Your task to perform on an android device: manage bookmarks in the chrome app Image 0: 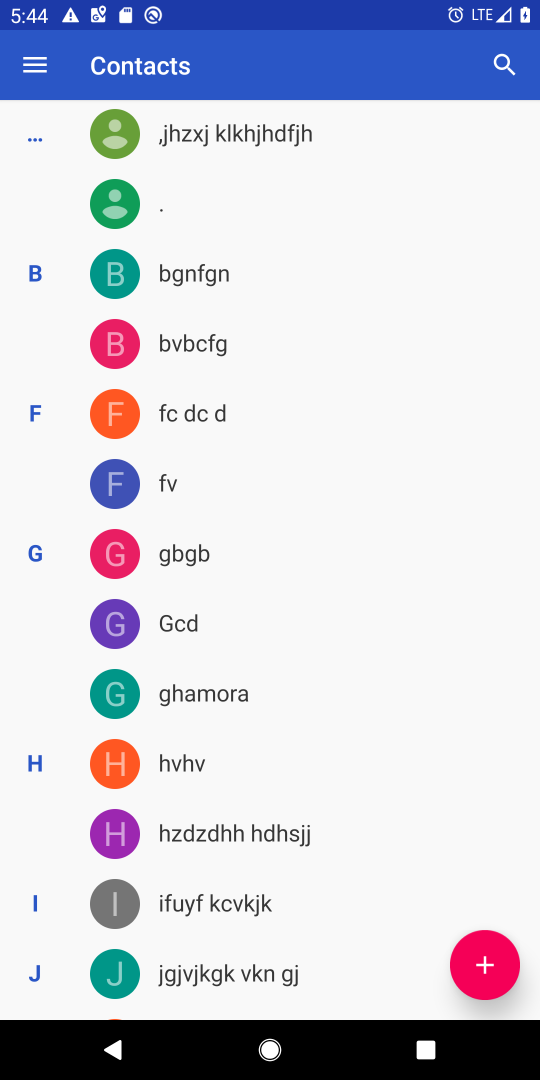
Step 0: press back button
Your task to perform on an android device: manage bookmarks in the chrome app Image 1: 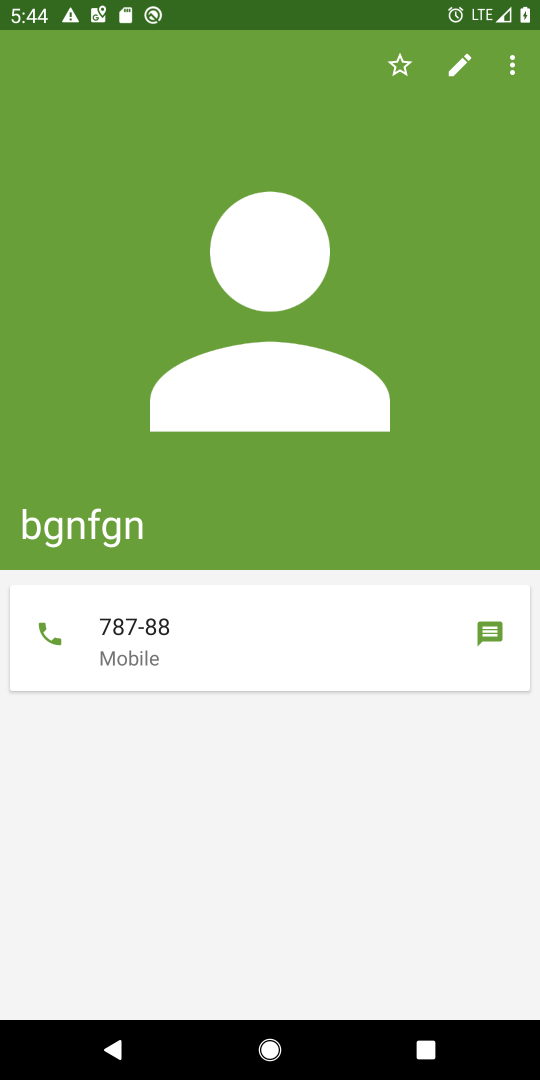
Step 1: press back button
Your task to perform on an android device: manage bookmarks in the chrome app Image 2: 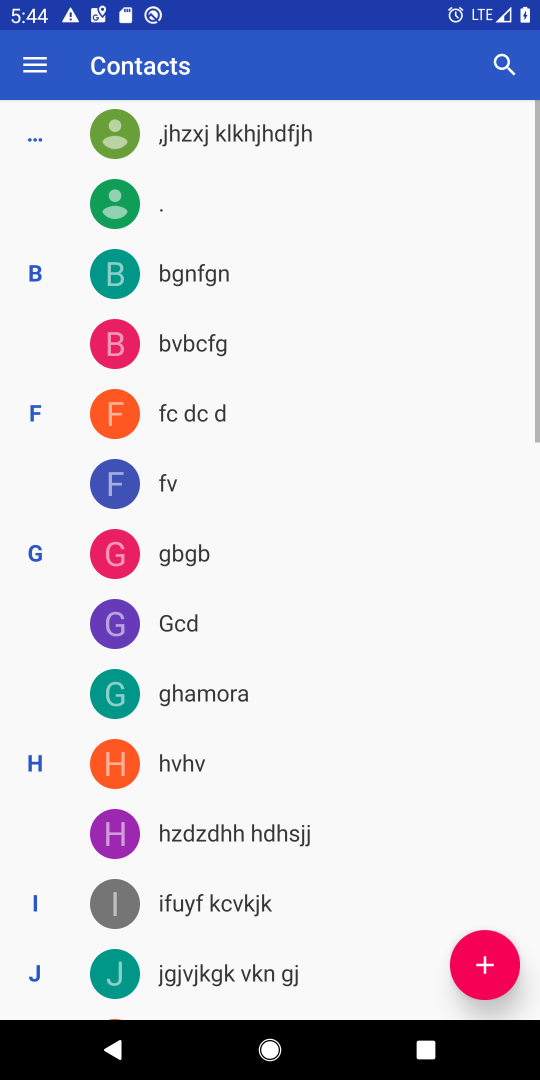
Step 2: press back button
Your task to perform on an android device: manage bookmarks in the chrome app Image 3: 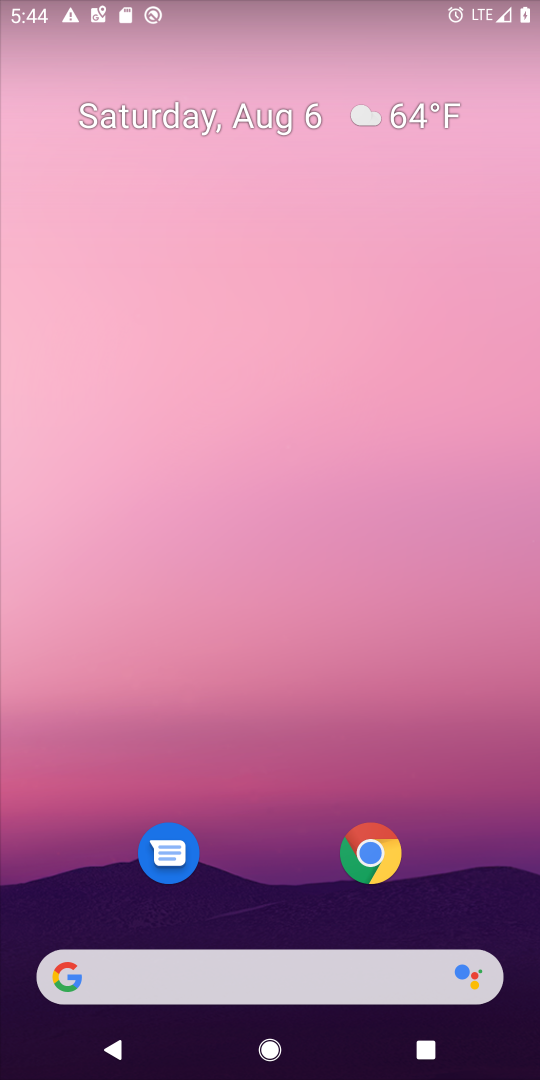
Step 3: click (366, 850)
Your task to perform on an android device: manage bookmarks in the chrome app Image 4: 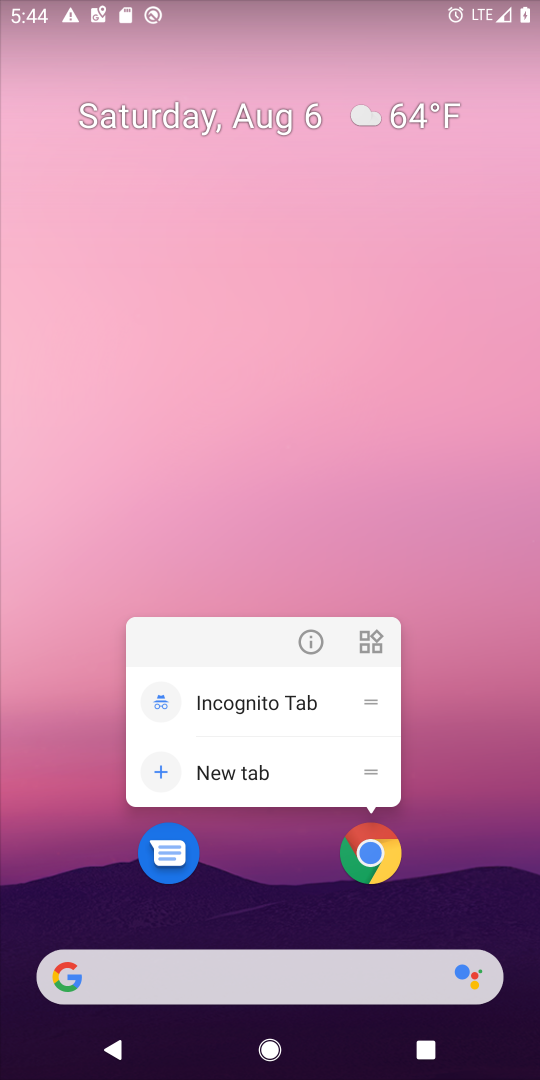
Step 4: click (366, 850)
Your task to perform on an android device: manage bookmarks in the chrome app Image 5: 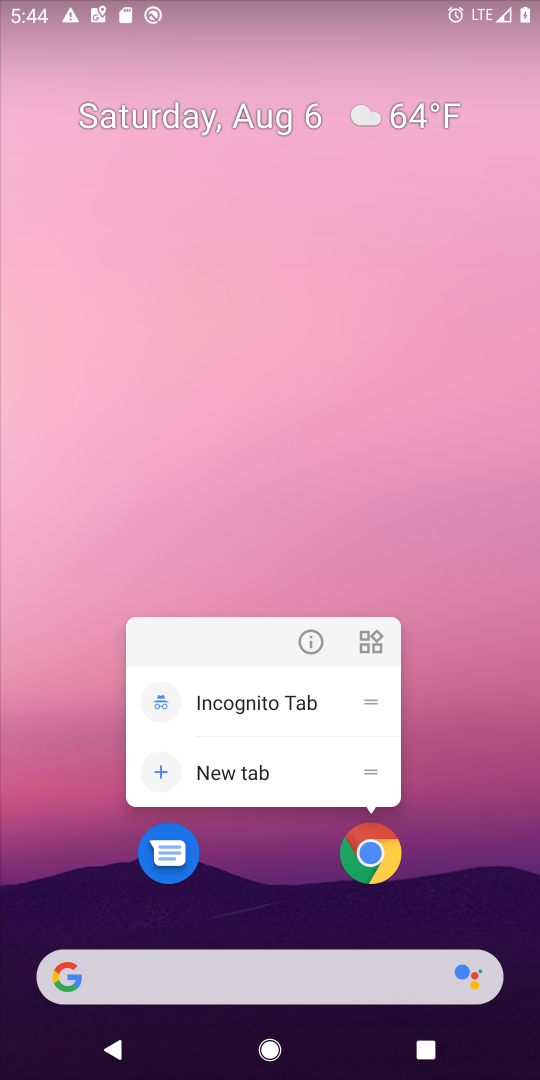
Step 5: click (372, 856)
Your task to perform on an android device: manage bookmarks in the chrome app Image 6: 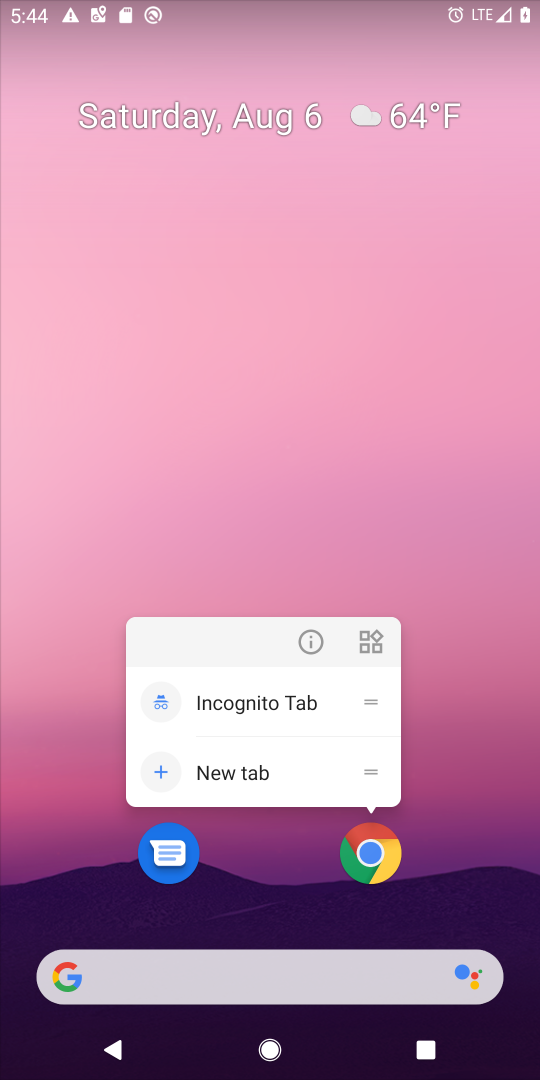
Step 6: click (372, 856)
Your task to perform on an android device: manage bookmarks in the chrome app Image 7: 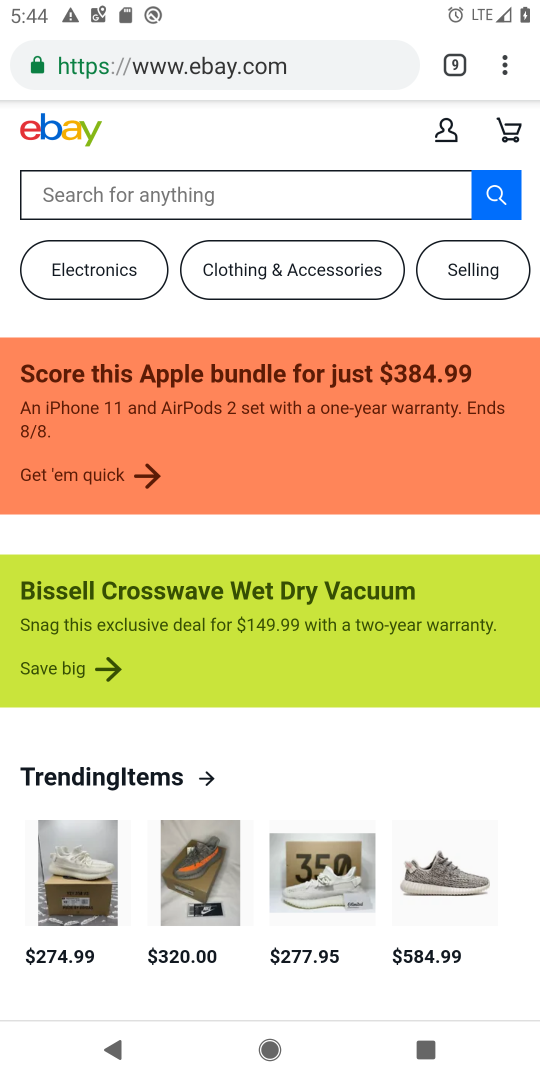
Step 7: drag from (499, 60) to (325, 258)
Your task to perform on an android device: manage bookmarks in the chrome app Image 8: 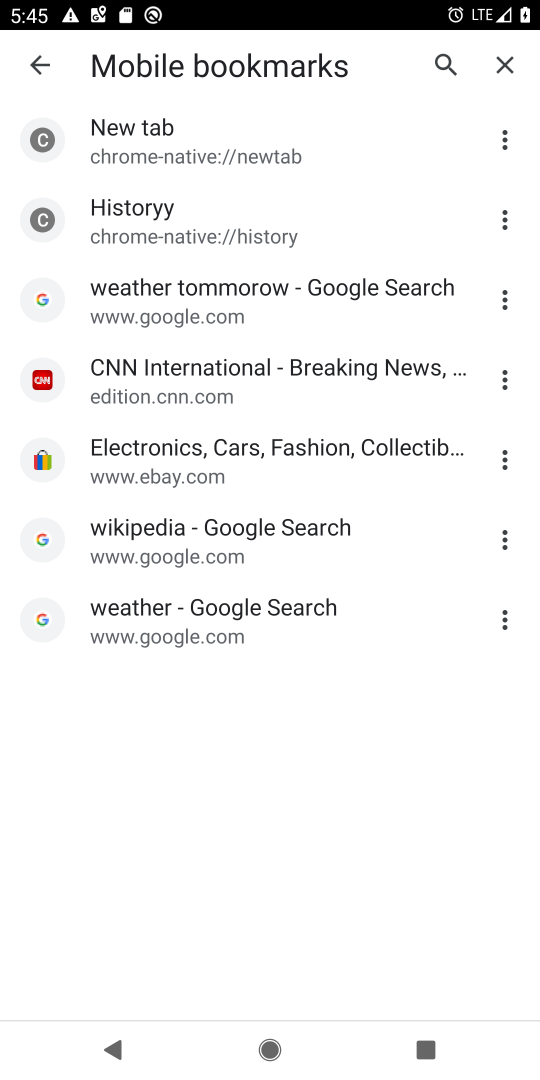
Step 8: click (511, 539)
Your task to perform on an android device: manage bookmarks in the chrome app Image 9: 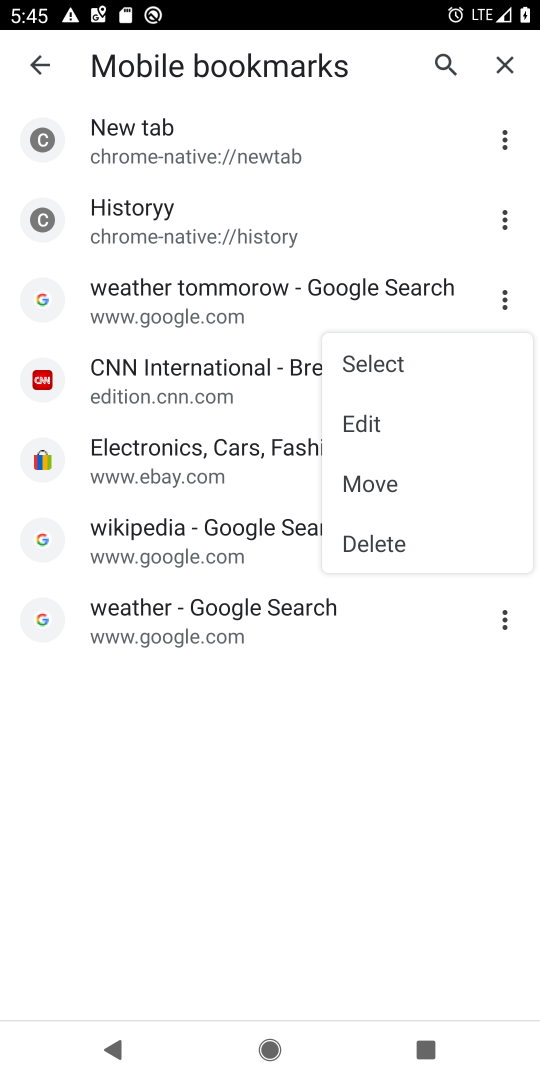
Step 9: click (375, 552)
Your task to perform on an android device: manage bookmarks in the chrome app Image 10: 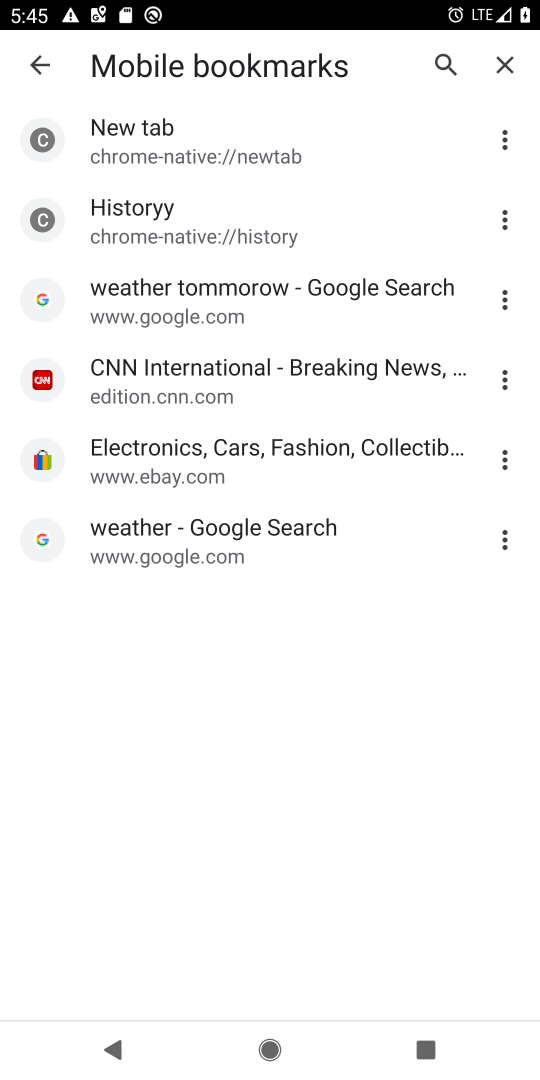
Step 10: task complete